Your task to perform on an android device: find snoozed emails in the gmail app Image 0: 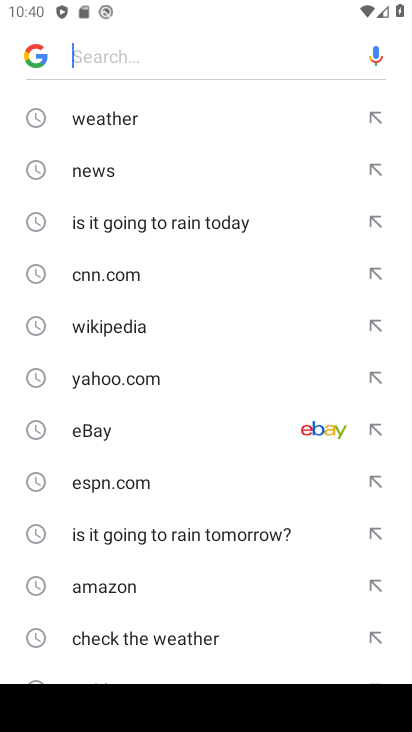
Step 0: press home button
Your task to perform on an android device: find snoozed emails in the gmail app Image 1: 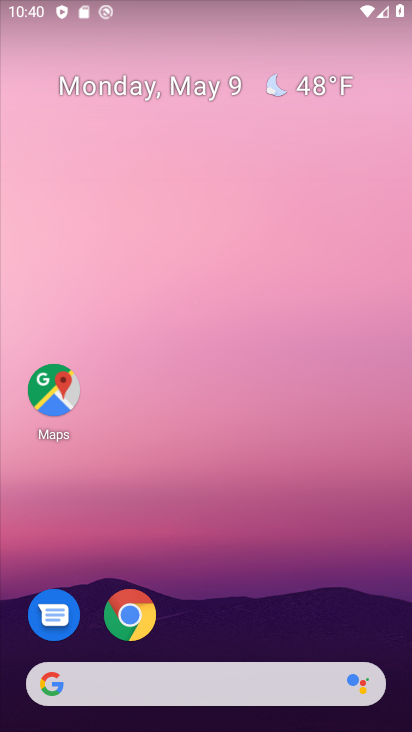
Step 1: drag from (186, 594) to (213, 114)
Your task to perform on an android device: find snoozed emails in the gmail app Image 2: 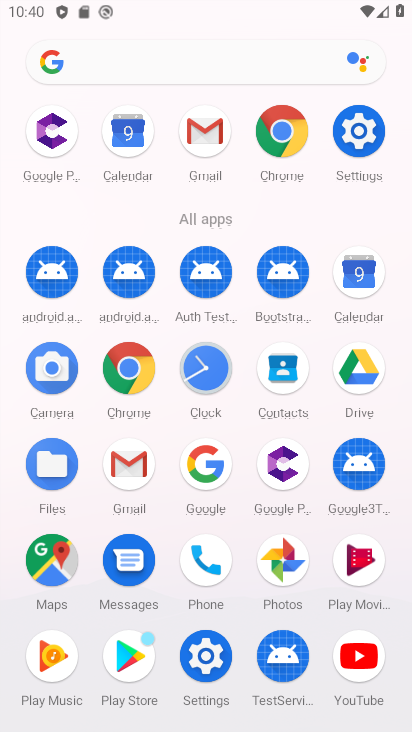
Step 2: click (208, 128)
Your task to perform on an android device: find snoozed emails in the gmail app Image 3: 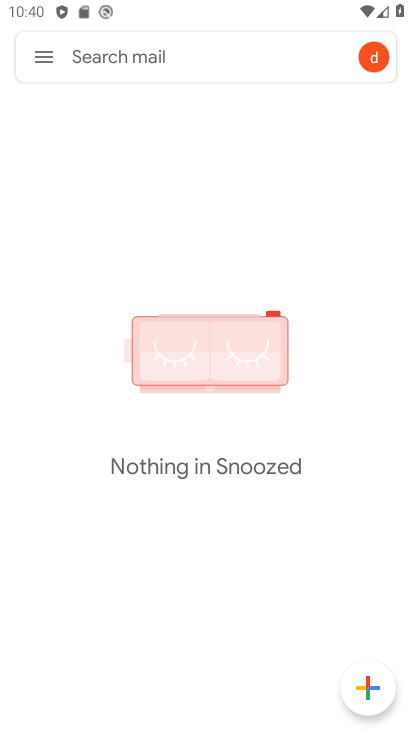
Step 3: click (45, 58)
Your task to perform on an android device: find snoozed emails in the gmail app Image 4: 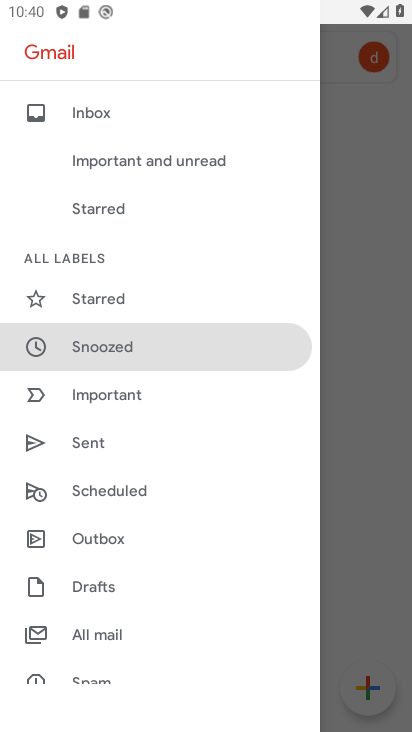
Step 4: click (131, 346)
Your task to perform on an android device: find snoozed emails in the gmail app Image 5: 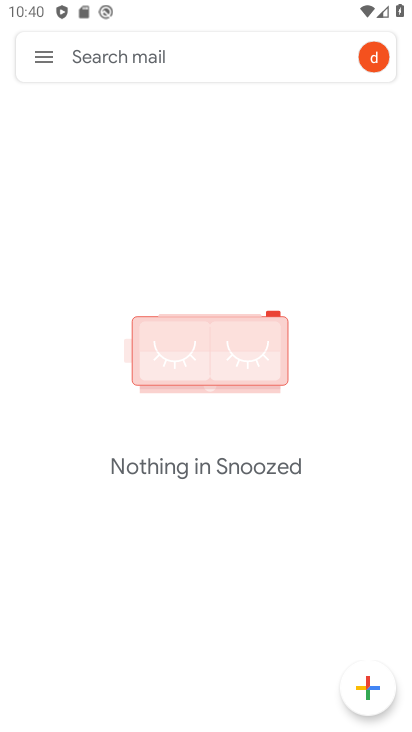
Step 5: task complete